Your task to perform on an android device: Do I have any events this weekend? Image 0: 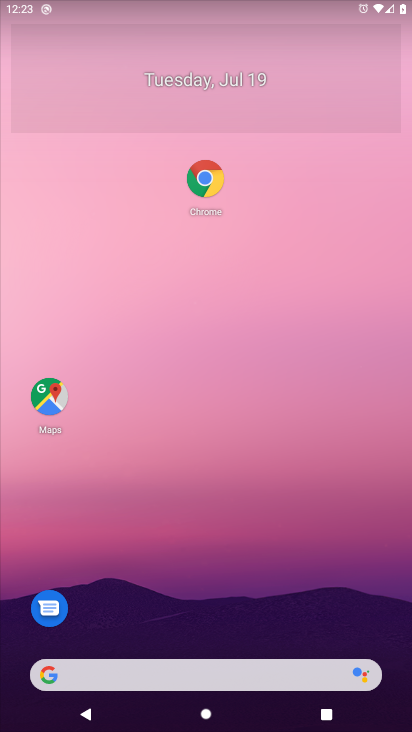
Step 0: drag from (24, 673) to (210, 132)
Your task to perform on an android device: Do I have any events this weekend? Image 1: 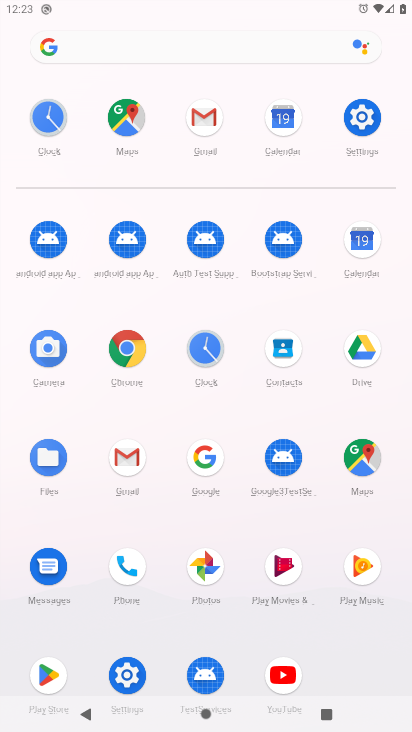
Step 1: click (360, 250)
Your task to perform on an android device: Do I have any events this weekend? Image 2: 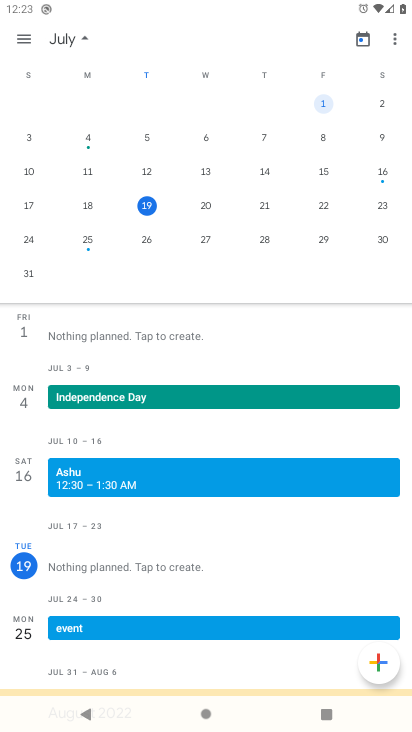
Step 2: task complete